Your task to perform on an android device: delete location history Image 0: 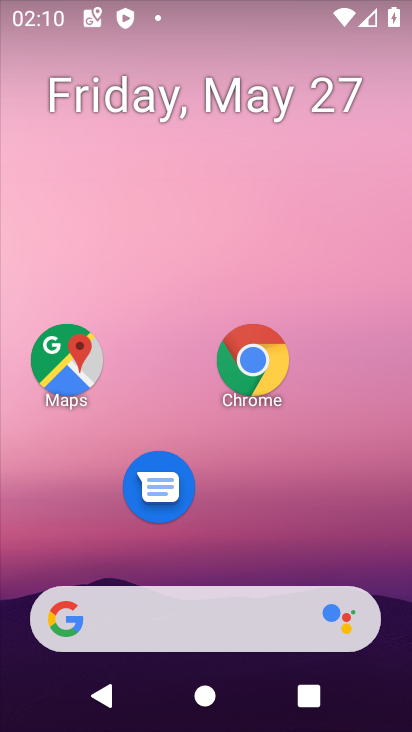
Step 0: drag from (280, 368) to (321, 36)
Your task to perform on an android device: delete location history Image 1: 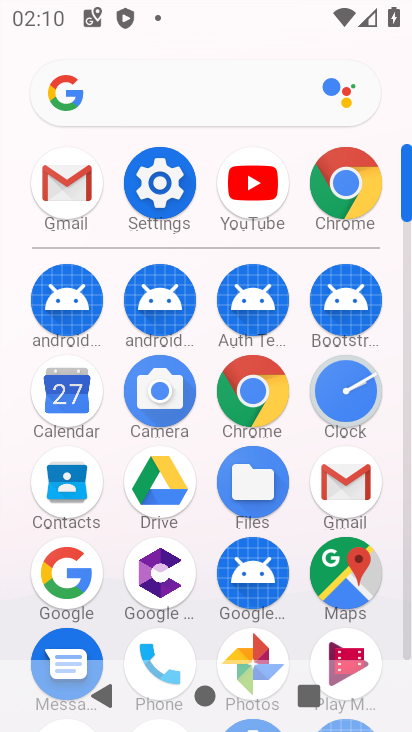
Step 1: click (162, 184)
Your task to perform on an android device: delete location history Image 2: 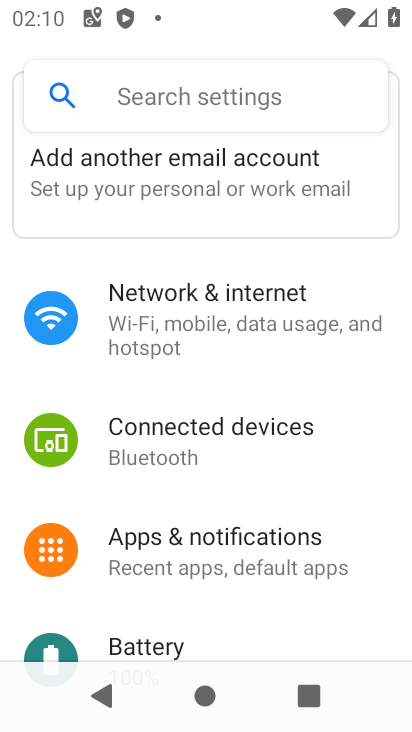
Step 2: drag from (203, 515) to (239, 134)
Your task to perform on an android device: delete location history Image 3: 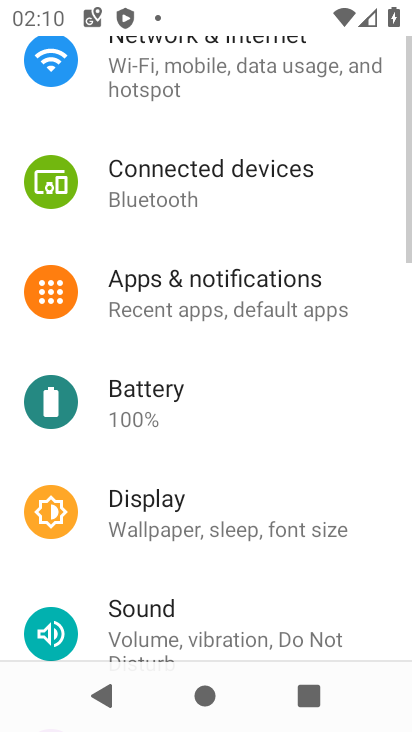
Step 3: drag from (225, 574) to (264, 304)
Your task to perform on an android device: delete location history Image 4: 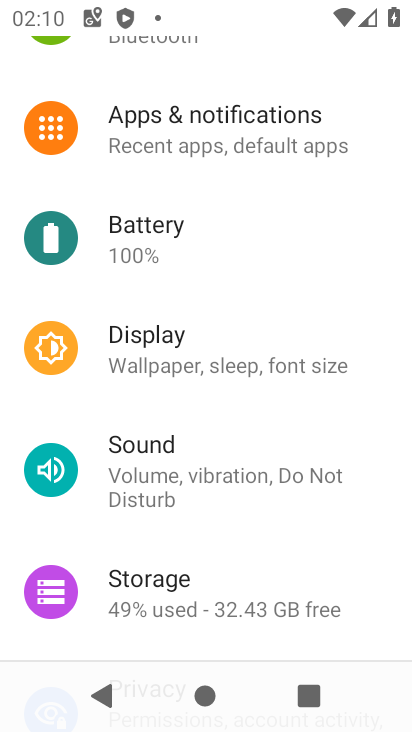
Step 4: drag from (237, 496) to (247, 133)
Your task to perform on an android device: delete location history Image 5: 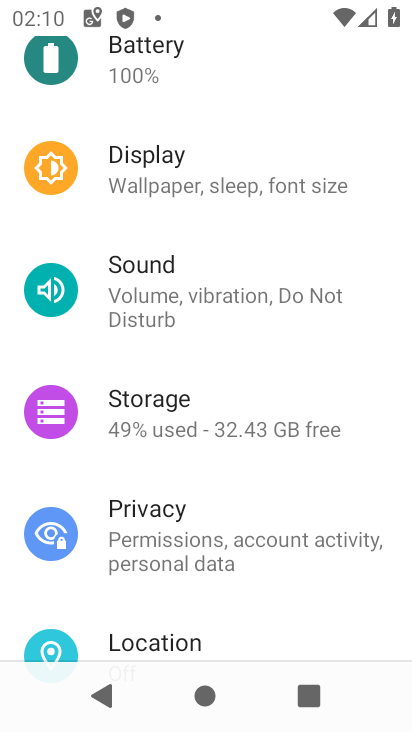
Step 5: click (142, 641)
Your task to perform on an android device: delete location history Image 6: 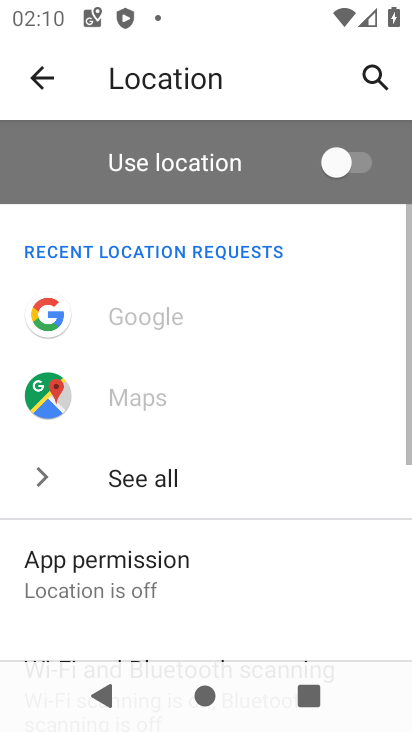
Step 6: drag from (213, 524) to (259, 145)
Your task to perform on an android device: delete location history Image 7: 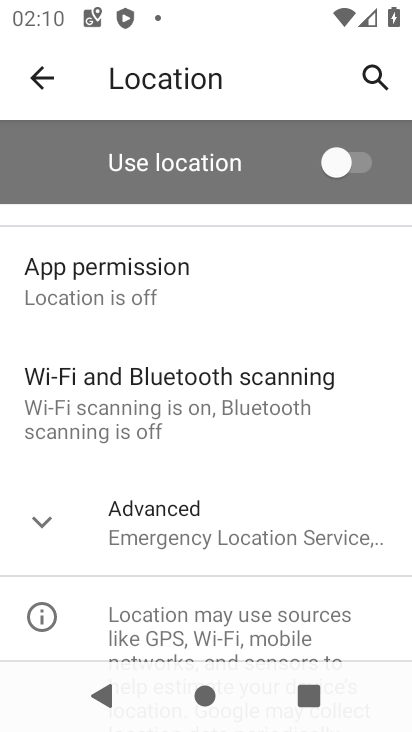
Step 7: click (128, 520)
Your task to perform on an android device: delete location history Image 8: 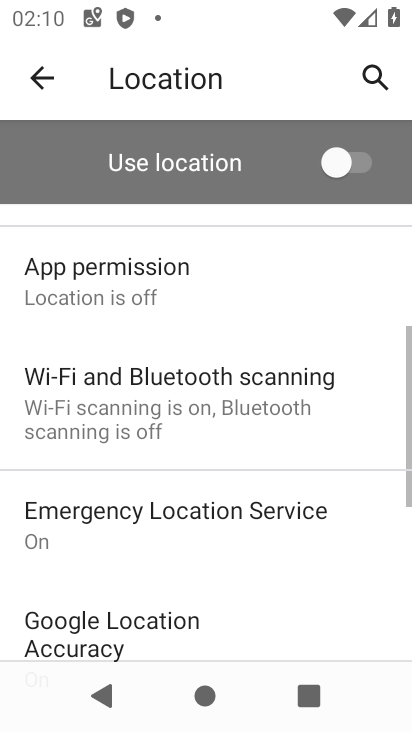
Step 8: drag from (244, 544) to (287, 197)
Your task to perform on an android device: delete location history Image 9: 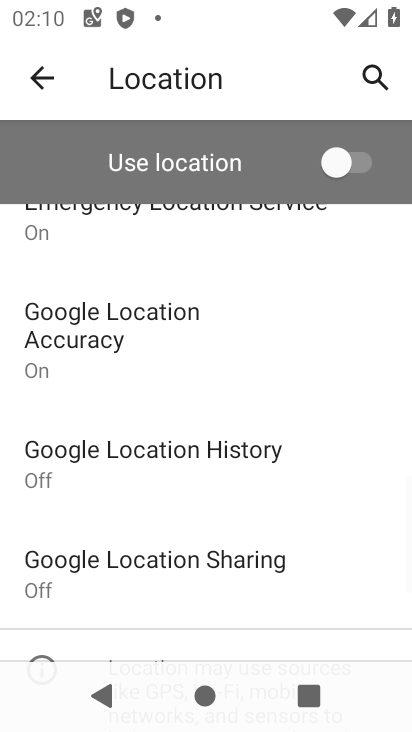
Step 9: click (138, 454)
Your task to perform on an android device: delete location history Image 10: 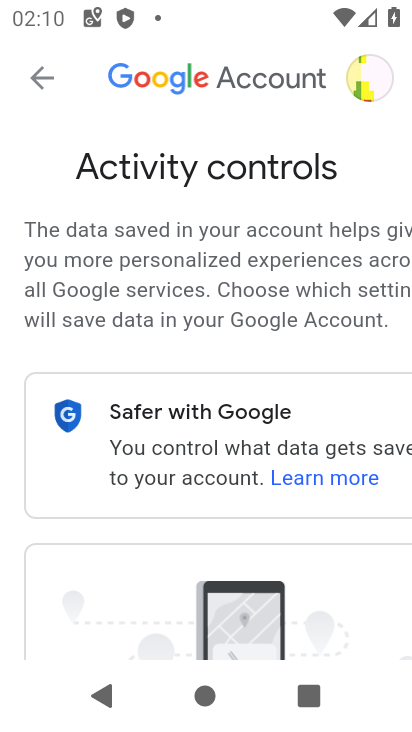
Step 10: drag from (332, 583) to (323, 79)
Your task to perform on an android device: delete location history Image 11: 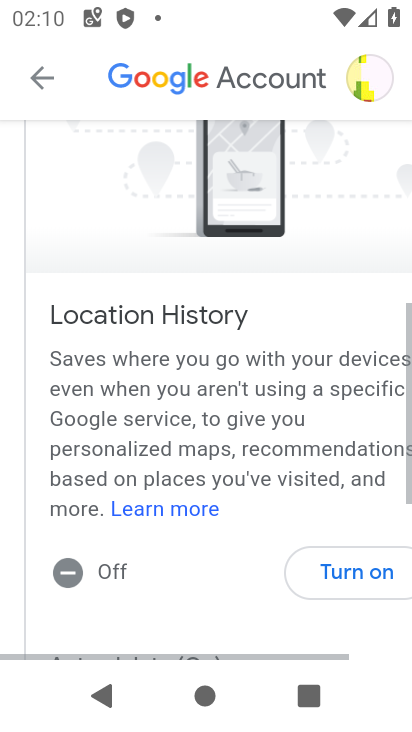
Step 11: drag from (154, 632) to (192, 215)
Your task to perform on an android device: delete location history Image 12: 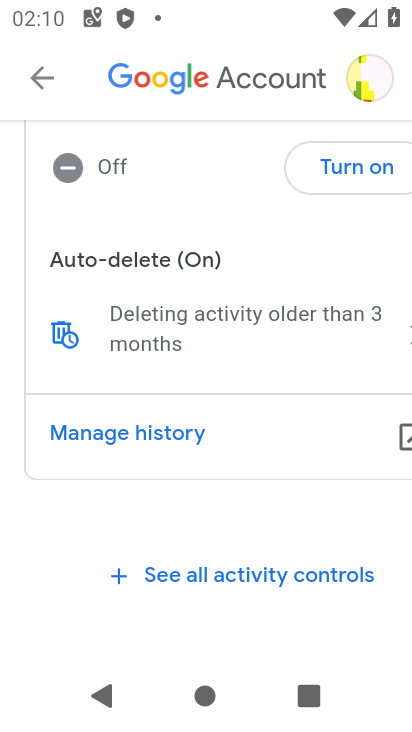
Step 12: click (68, 334)
Your task to perform on an android device: delete location history Image 13: 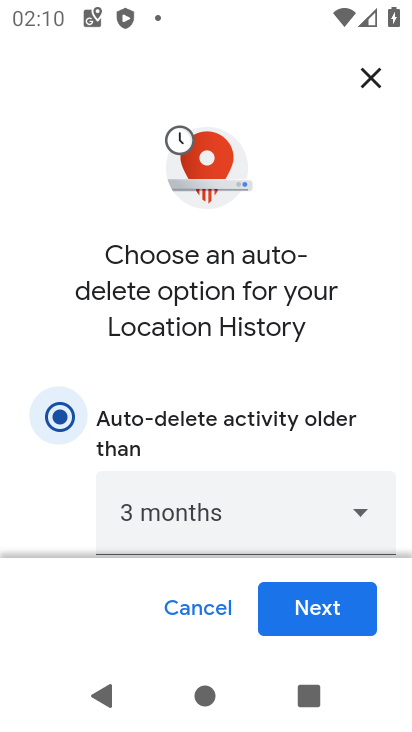
Step 13: click (302, 616)
Your task to perform on an android device: delete location history Image 14: 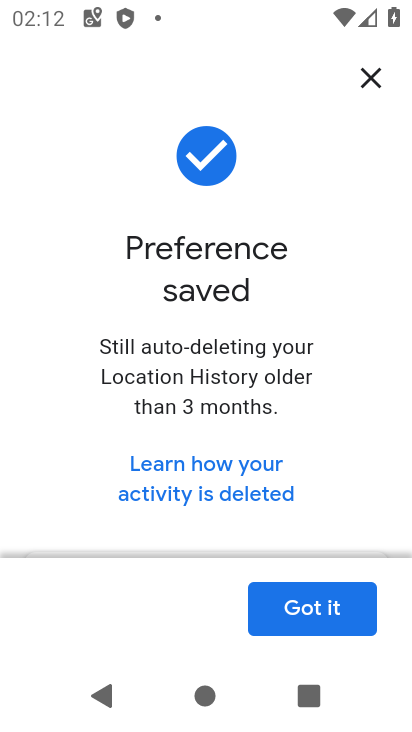
Step 14: task complete